Your task to perform on an android device: Go to network settings Image 0: 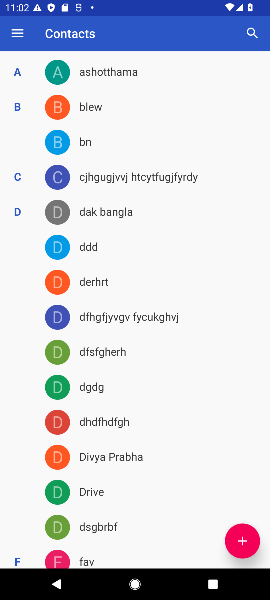
Step 0: press home button
Your task to perform on an android device: Go to network settings Image 1: 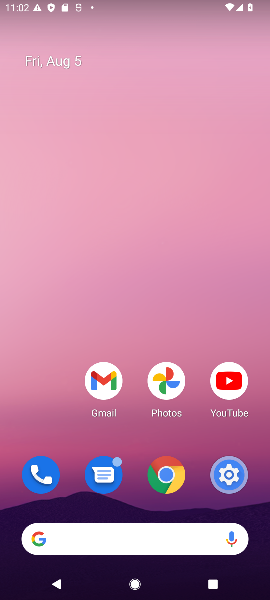
Step 1: drag from (124, 506) to (131, 45)
Your task to perform on an android device: Go to network settings Image 2: 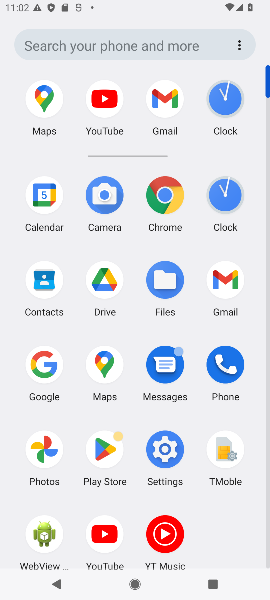
Step 2: click (169, 458)
Your task to perform on an android device: Go to network settings Image 3: 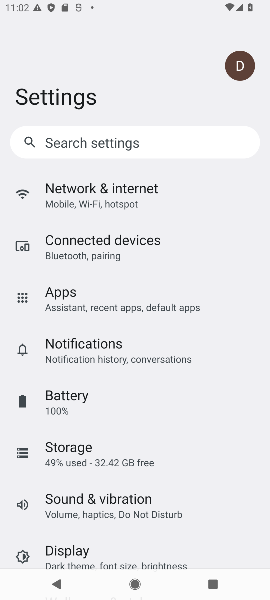
Step 3: click (120, 198)
Your task to perform on an android device: Go to network settings Image 4: 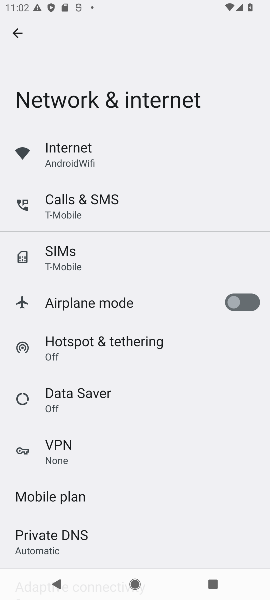
Step 4: task complete